Your task to perform on an android device: check storage Image 0: 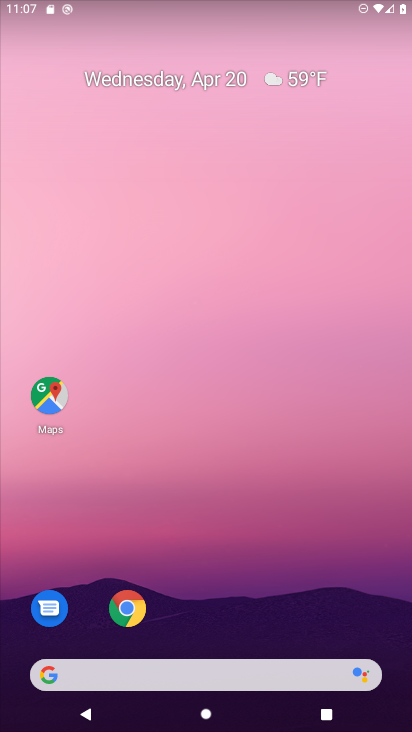
Step 0: drag from (368, 332) to (410, 41)
Your task to perform on an android device: check storage Image 1: 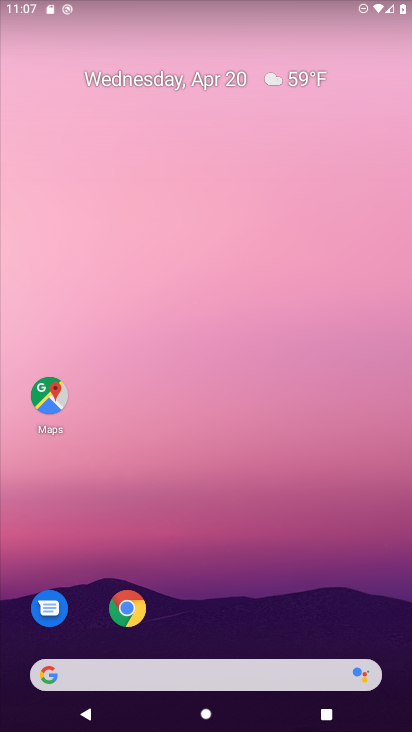
Step 1: drag from (297, 611) to (307, 88)
Your task to perform on an android device: check storage Image 2: 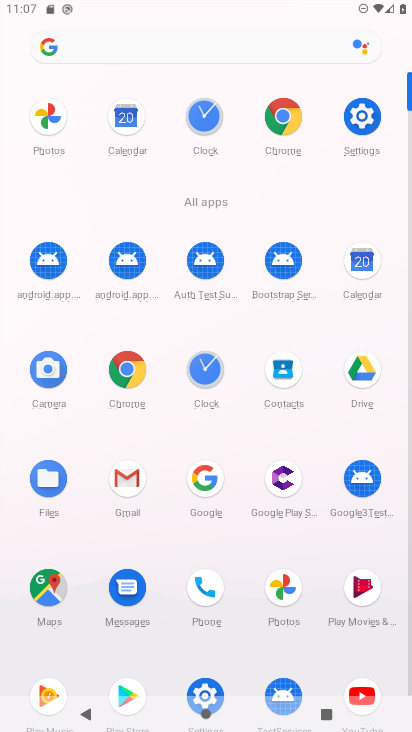
Step 2: click (364, 116)
Your task to perform on an android device: check storage Image 3: 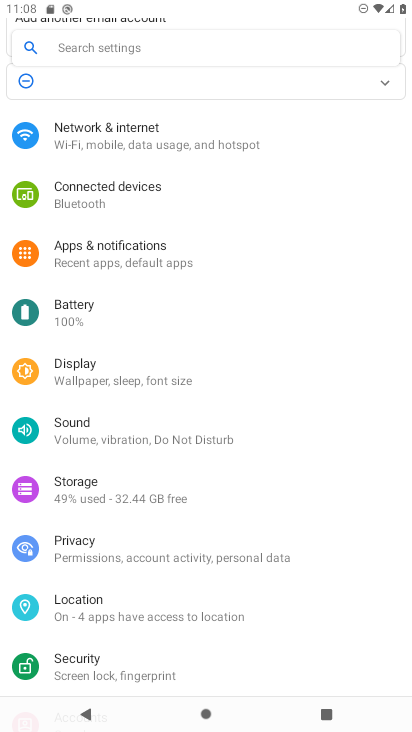
Step 3: click (153, 495)
Your task to perform on an android device: check storage Image 4: 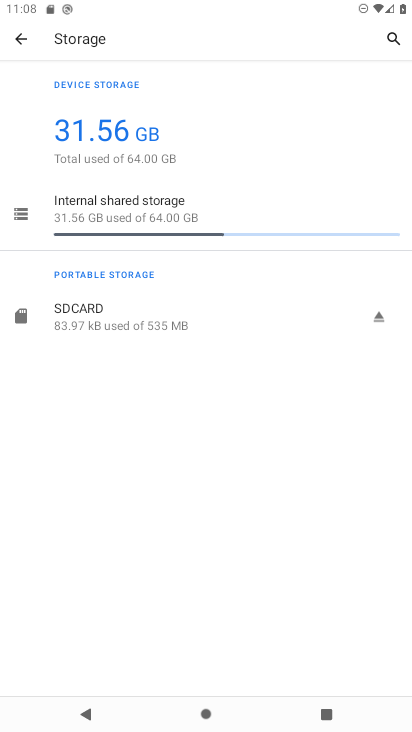
Step 4: task complete